Your task to perform on an android device: toggle pop-ups in chrome Image 0: 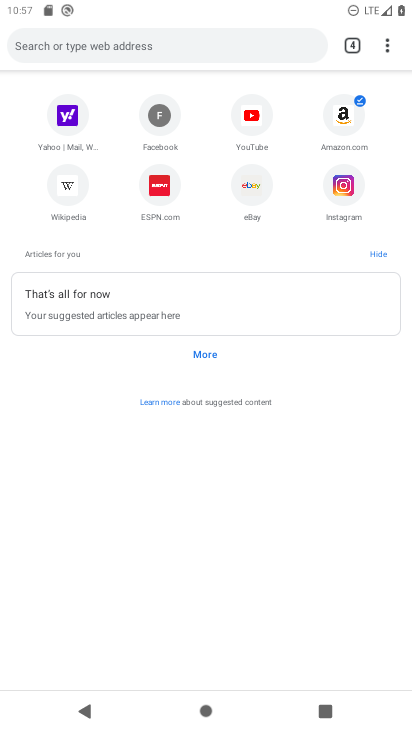
Step 0: click (389, 44)
Your task to perform on an android device: toggle pop-ups in chrome Image 1: 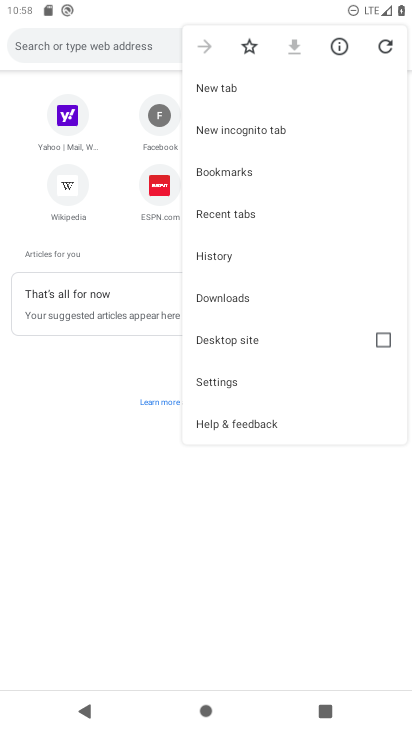
Step 1: click (209, 380)
Your task to perform on an android device: toggle pop-ups in chrome Image 2: 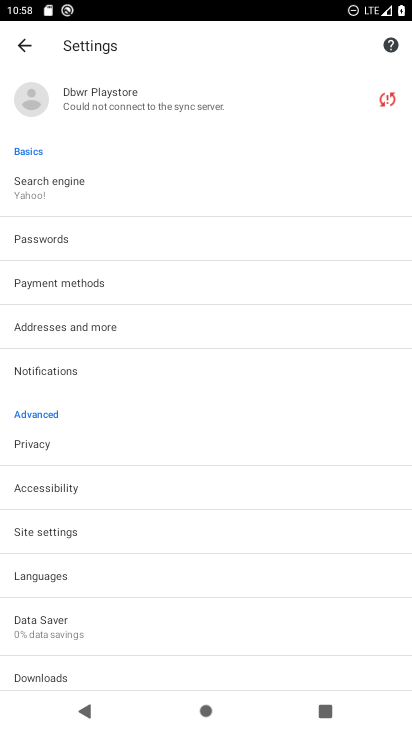
Step 2: click (57, 532)
Your task to perform on an android device: toggle pop-ups in chrome Image 3: 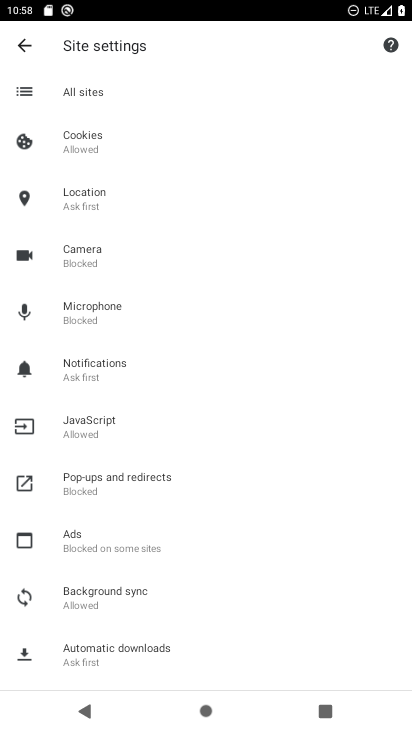
Step 3: click (111, 471)
Your task to perform on an android device: toggle pop-ups in chrome Image 4: 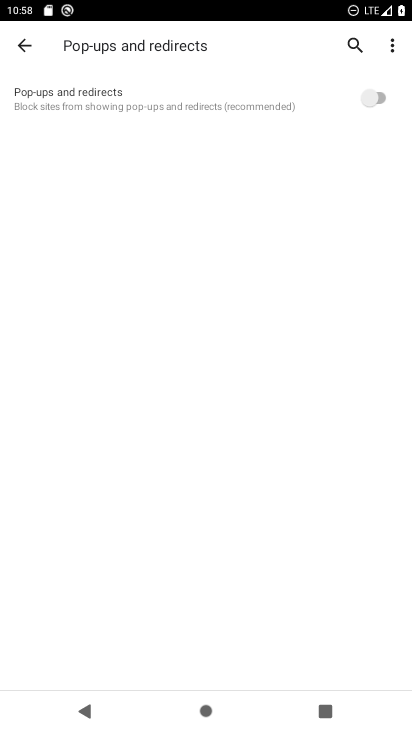
Step 4: click (368, 97)
Your task to perform on an android device: toggle pop-ups in chrome Image 5: 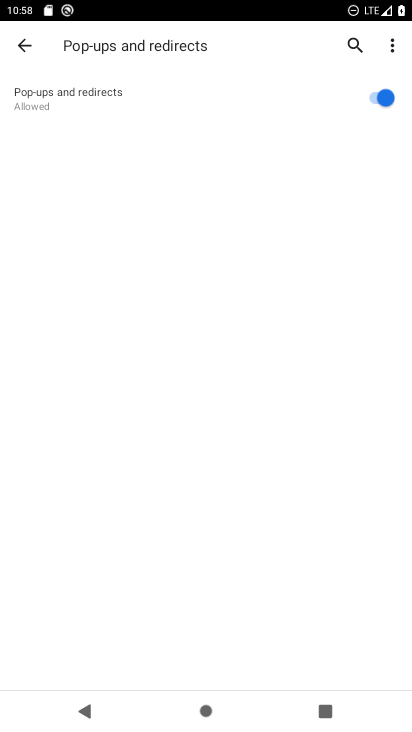
Step 5: task complete